Your task to perform on an android device: Open Google Chrome Image 0: 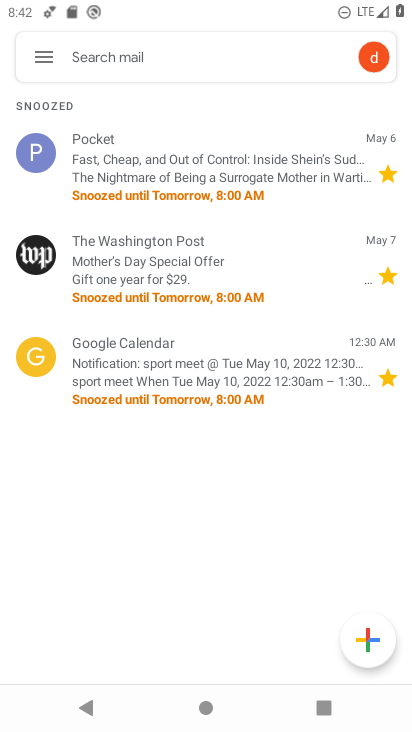
Step 0: press home button
Your task to perform on an android device: Open Google Chrome Image 1: 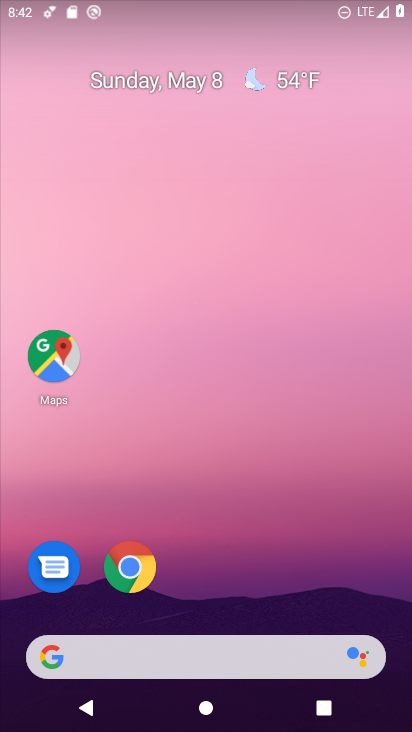
Step 1: click (141, 558)
Your task to perform on an android device: Open Google Chrome Image 2: 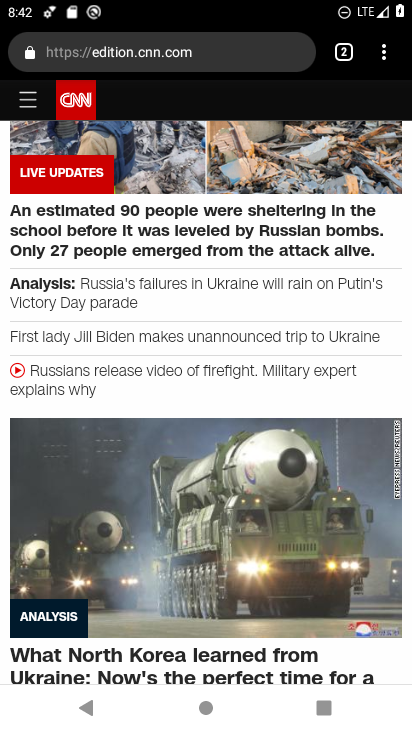
Step 2: task complete